Your task to perform on an android device: turn smart compose on in the gmail app Image 0: 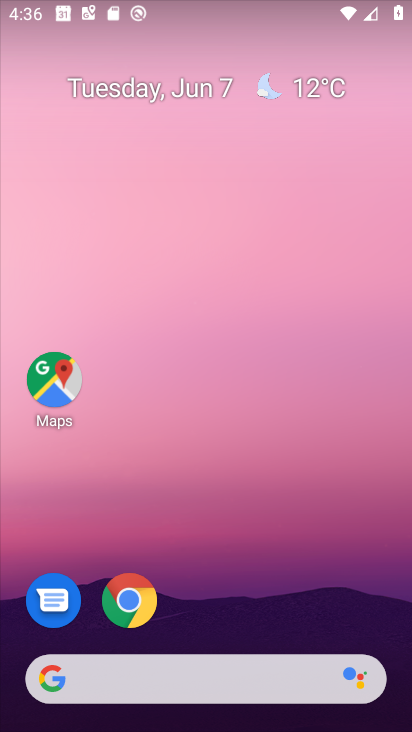
Step 0: drag from (325, 347) to (272, 44)
Your task to perform on an android device: turn smart compose on in the gmail app Image 1: 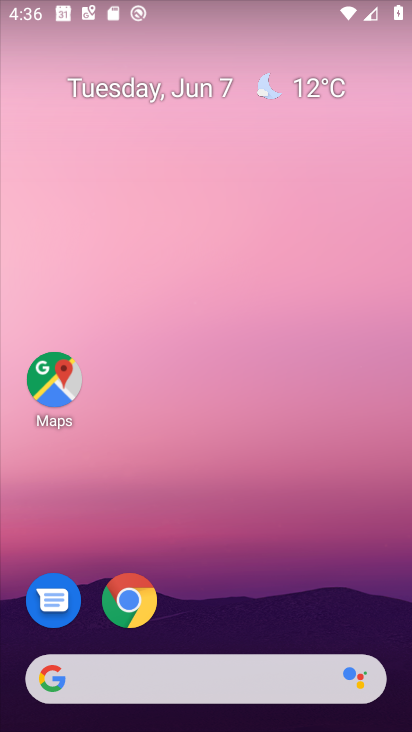
Step 1: drag from (292, 552) to (226, 127)
Your task to perform on an android device: turn smart compose on in the gmail app Image 2: 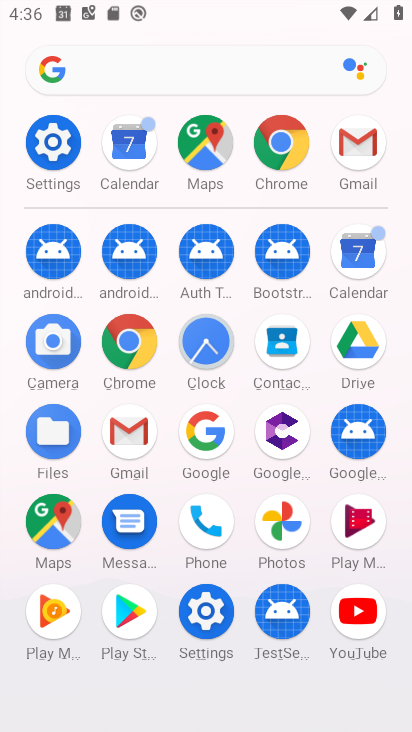
Step 2: click (348, 145)
Your task to perform on an android device: turn smart compose on in the gmail app Image 3: 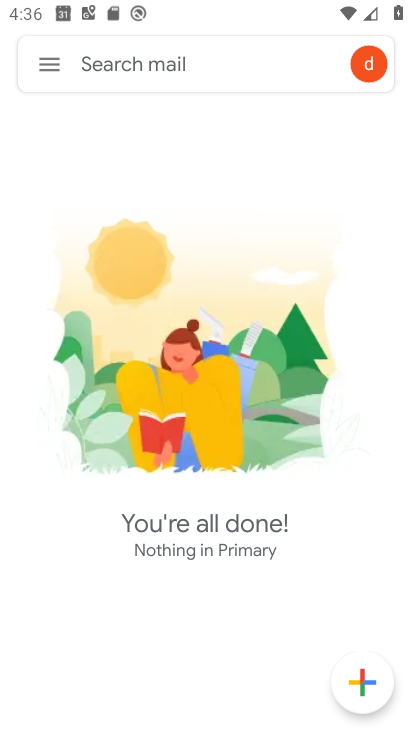
Step 3: click (44, 54)
Your task to perform on an android device: turn smart compose on in the gmail app Image 4: 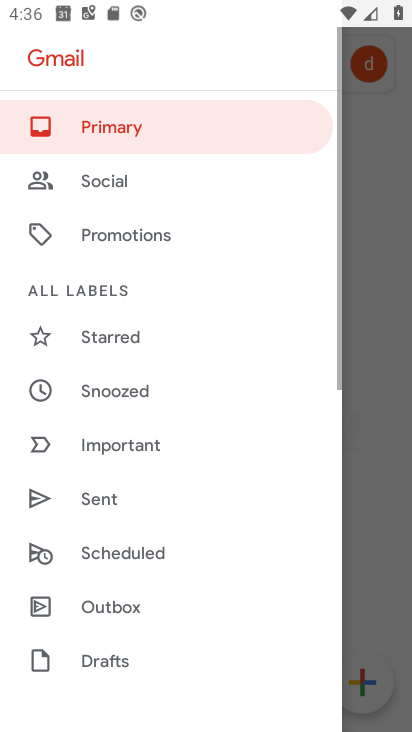
Step 4: drag from (150, 611) to (190, 188)
Your task to perform on an android device: turn smart compose on in the gmail app Image 5: 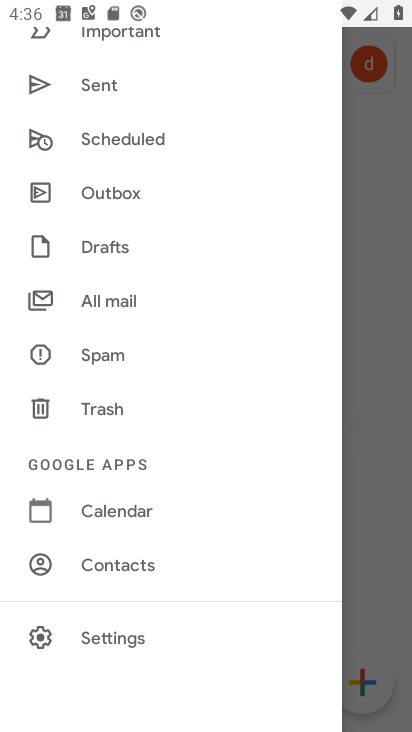
Step 5: click (133, 638)
Your task to perform on an android device: turn smart compose on in the gmail app Image 6: 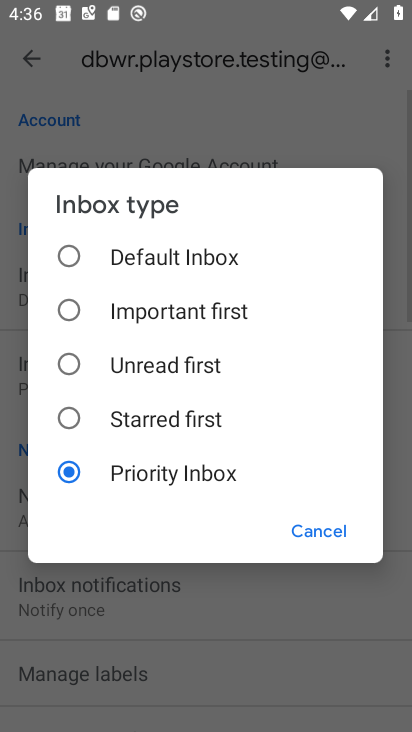
Step 6: click (334, 531)
Your task to perform on an android device: turn smart compose on in the gmail app Image 7: 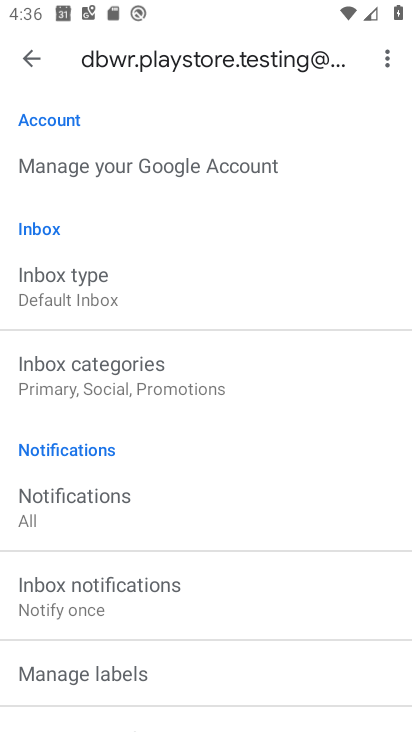
Step 7: drag from (126, 317) to (168, 680)
Your task to perform on an android device: turn smart compose on in the gmail app Image 8: 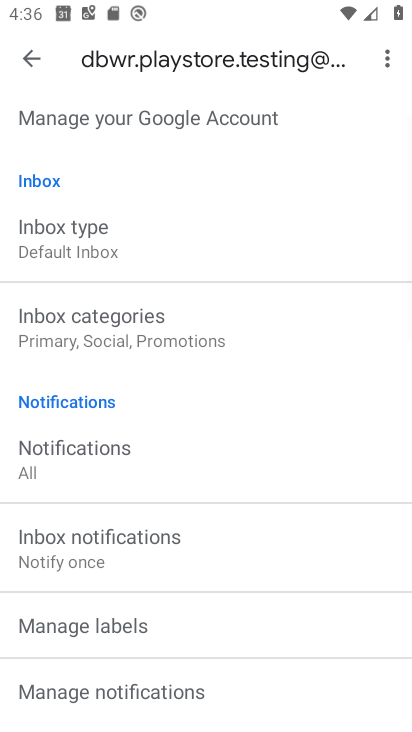
Step 8: drag from (202, 548) to (194, 229)
Your task to perform on an android device: turn smart compose on in the gmail app Image 9: 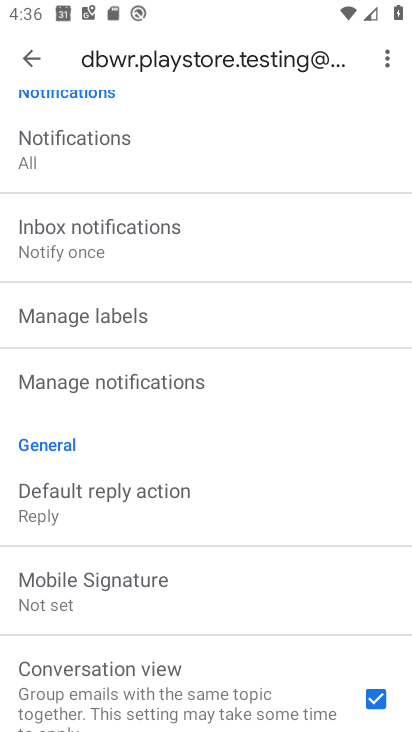
Step 9: drag from (181, 632) to (243, 239)
Your task to perform on an android device: turn smart compose on in the gmail app Image 10: 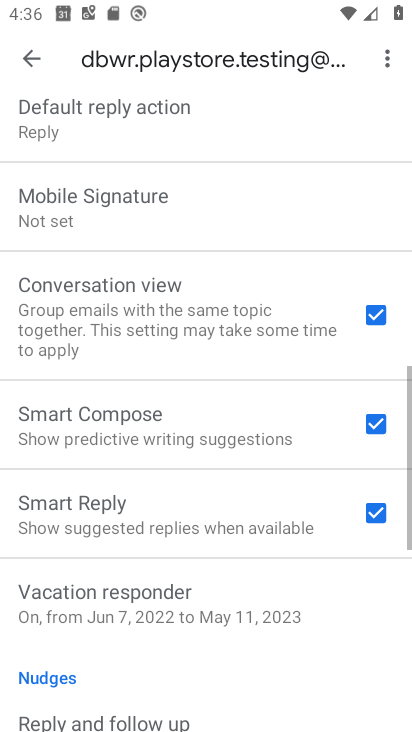
Step 10: click (243, 238)
Your task to perform on an android device: turn smart compose on in the gmail app Image 11: 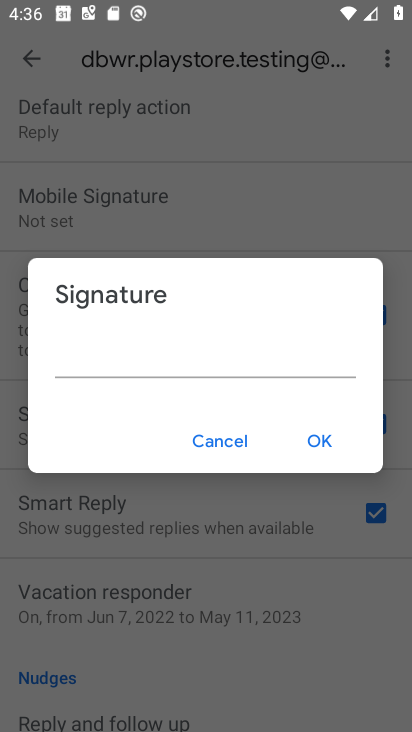
Step 11: click (240, 444)
Your task to perform on an android device: turn smart compose on in the gmail app Image 12: 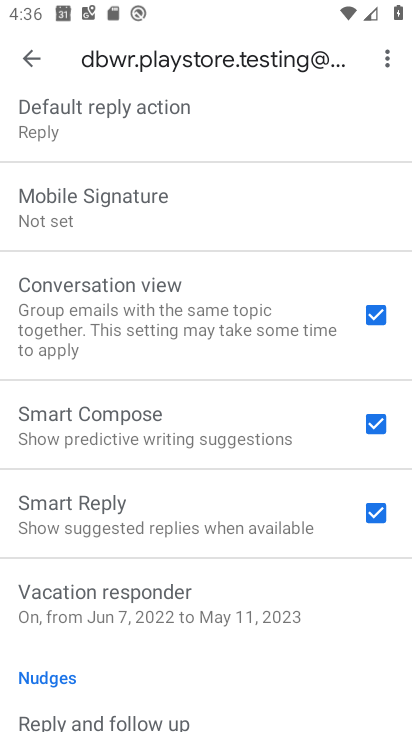
Step 12: task complete